Your task to perform on an android device: toggle notifications settings in the gmail app Image 0: 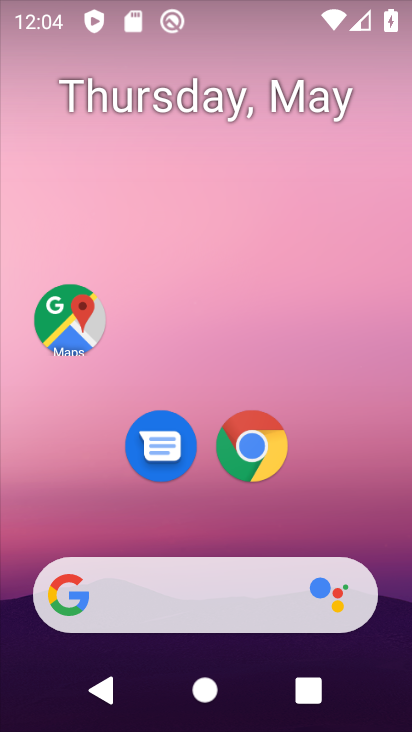
Step 0: press home button
Your task to perform on an android device: toggle notifications settings in the gmail app Image 1: 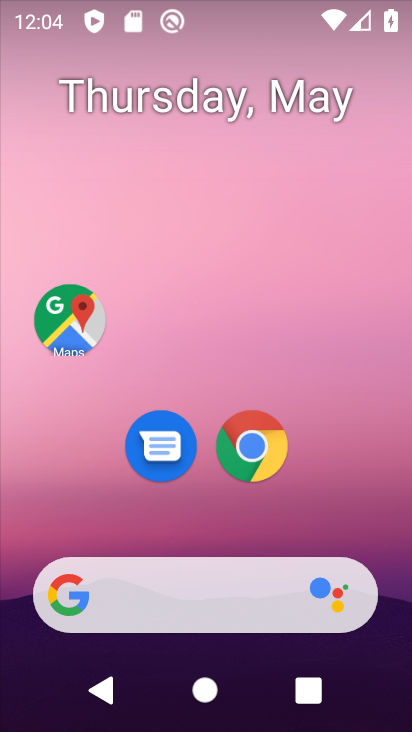
Step 1: drag from (361, 522) to (411, 80)
Your task to perform on an android device: toggle notifications settings in the gmail app Image 2: 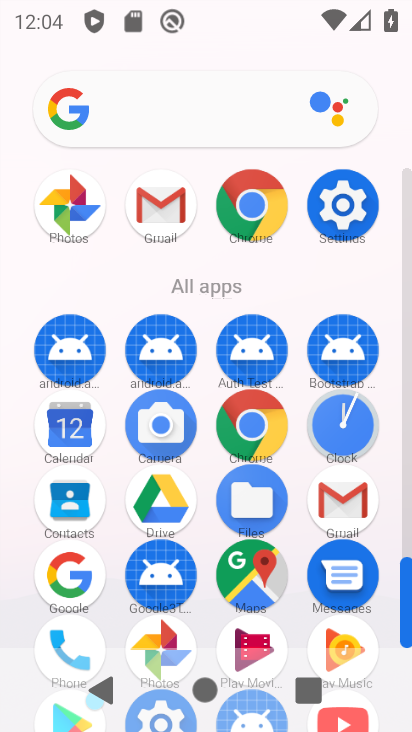
Step 2: click (342, 228)
Your task to perform on an android device: toggle notifications settings in the gmail app Image 3: 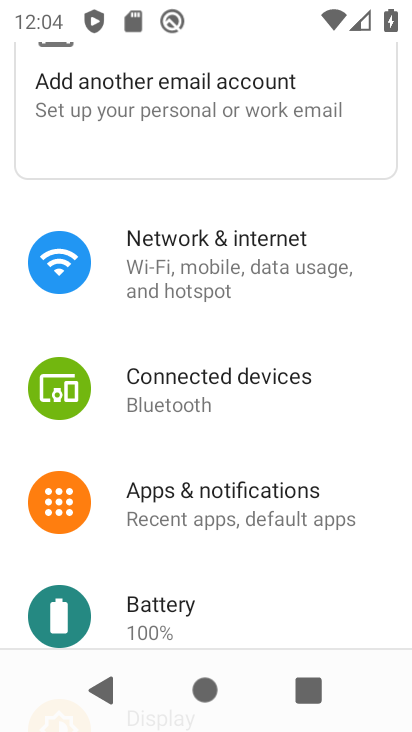
Step 3: click (255, 489)
Your task to perform on an android device: toggle notifications settings in the gmail app Image 4: 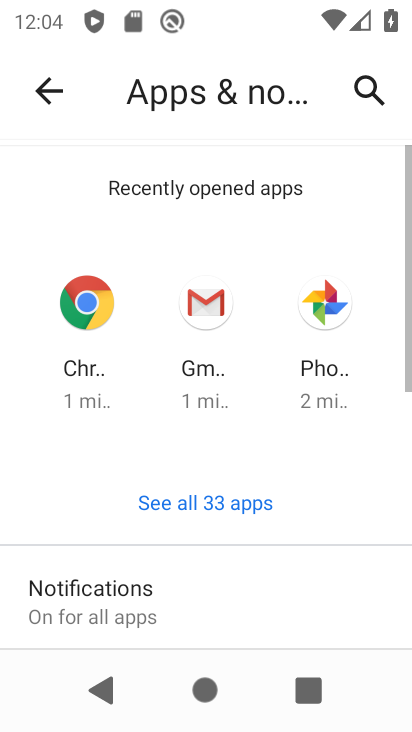
Step 4: press home button
Your task to perform on an android device: toggle notifications settings in the gmail app Image 5: 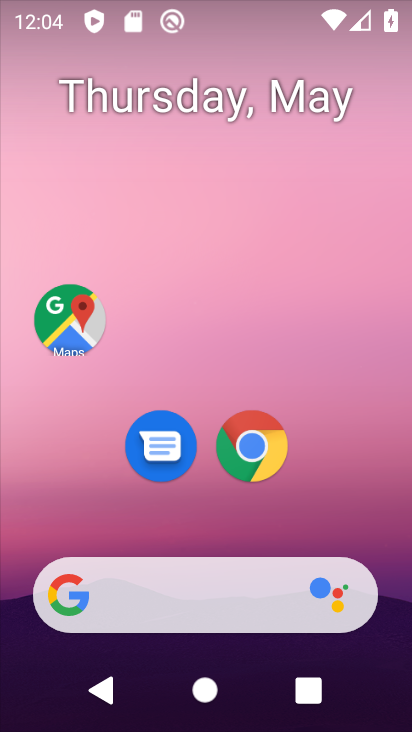
Step 5: drag from (361, 483) to (349, 170)
Your task to perform on an android device: toggle notifications settings in the gmail app Image 6: 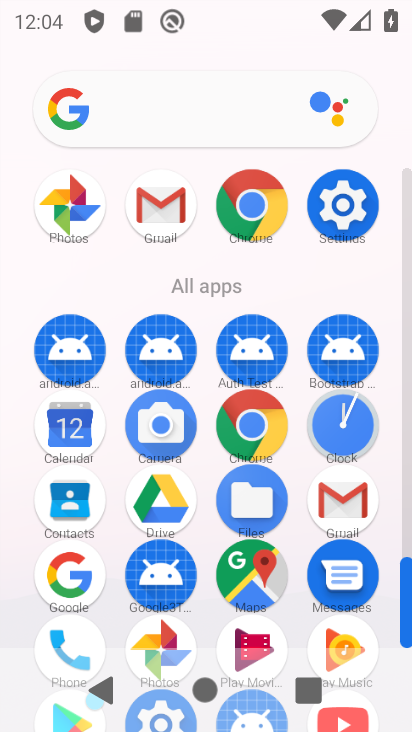
Step 6: click (354, 493)
Your task to perform on an android device: toggle notifications settings in the gmail app Image 7: 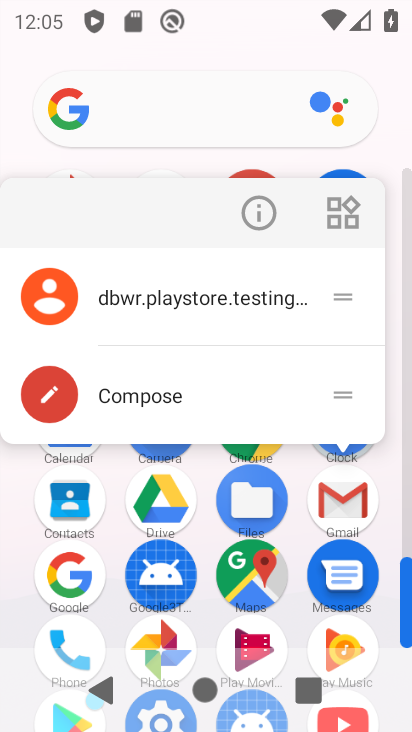
Step 7: click (249, 208)
Your task to perform on an android device: toggle notifications settings in the gmail app Image 8: 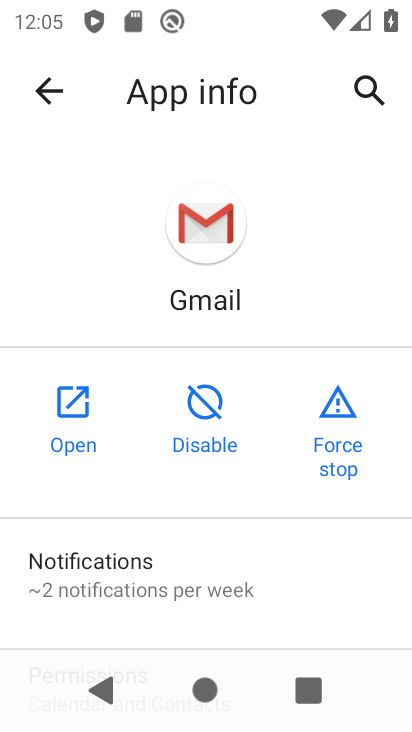
Step 8: click (115, 545)
Your task to perform on an android device: toggle notifications settings in the gmail app Image 9: 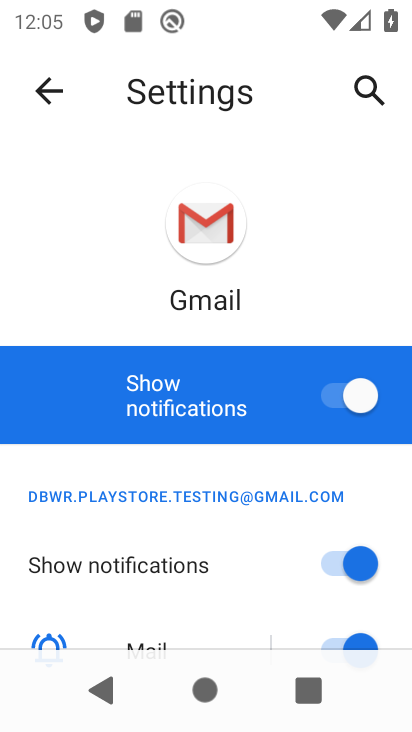
Step 9: click (344, 404)
Your task to perform on an android device: toggle notifications settings in the gmail app Image 10: 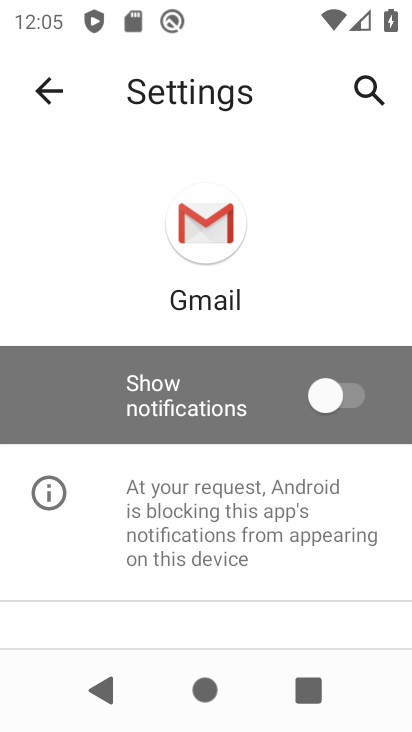
Step 10: task complete